Your task to perform on an android device: Go to location settings Image 0: 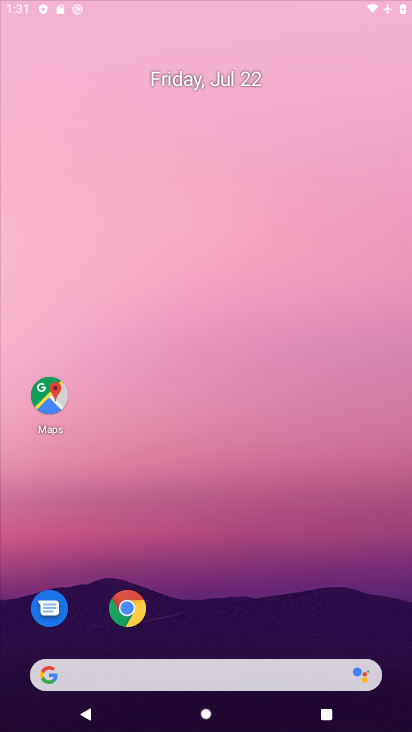
Step 0: press home button
Your task to perform on an android device: Go to location settings Image 1: 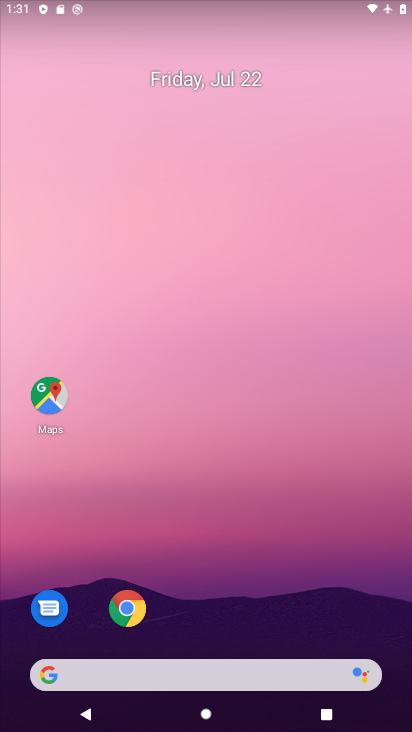
Step 1: drag from (245, 727) to (232, 101)
Your task to perform on an android device: Go to location settings Image 2: 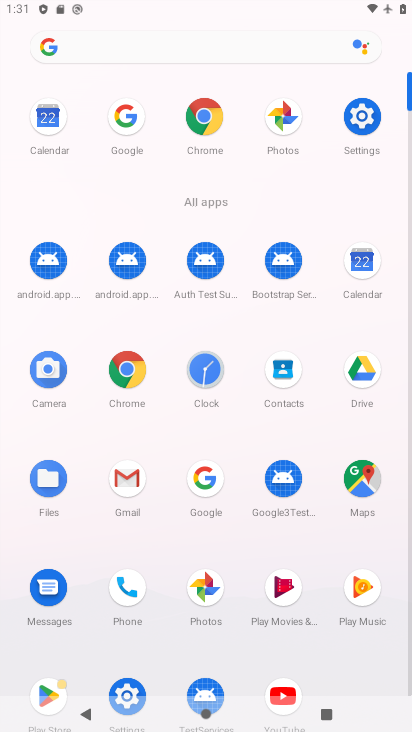
Step 2: click (363, 121)
Your task to perform on an android device: Go to location settings Image 3: 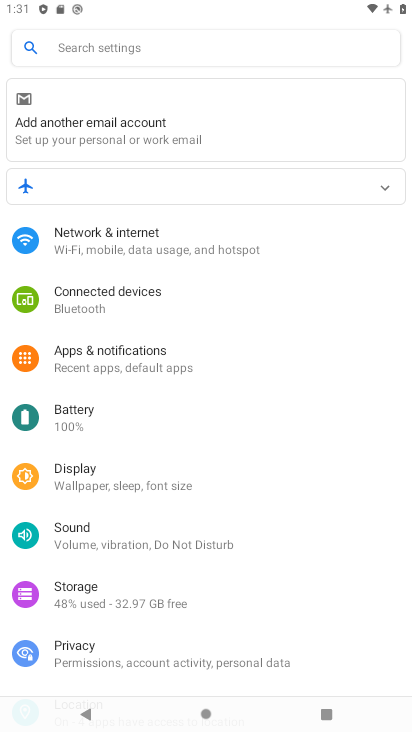
Step 3: drag from (155, 605) to (155, 323)
Your task to perform on an android device: Go to location settings Image 4: 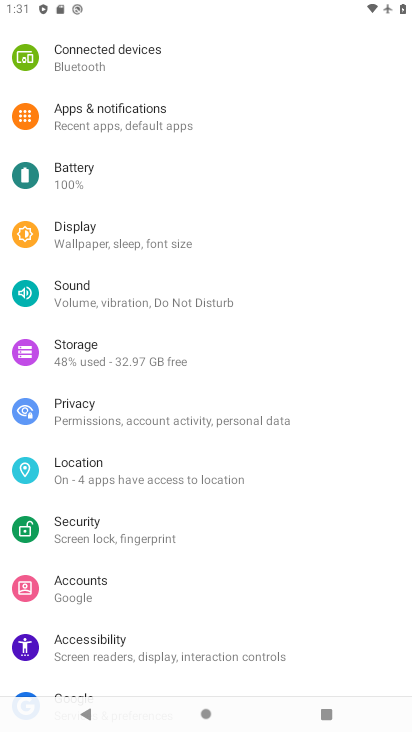
Step 4: click (91, 469)
Your task to perform on an android device: Go to location settings Image 5: 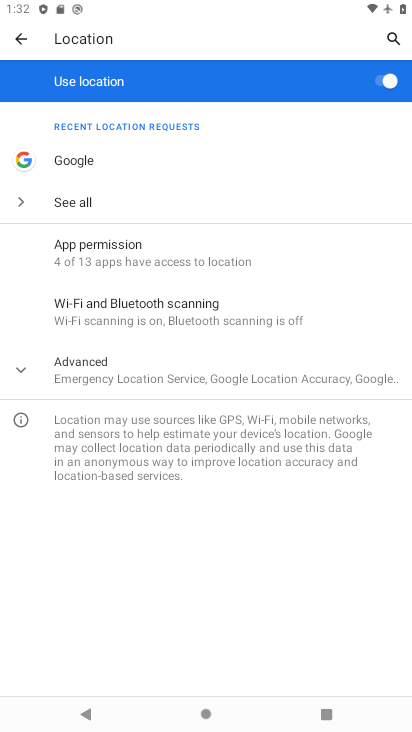
Step 5: task complete